Your task to perform on an android device: all mails in gmail Image 0: 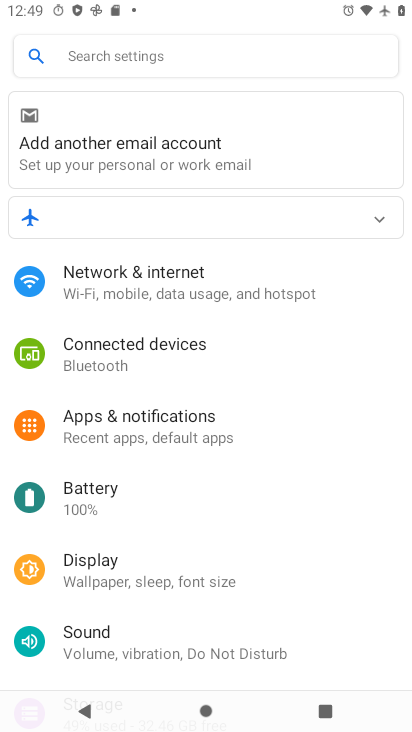
Step 0: press home button
Your task to perform on an android device: all mails in gmail Image 1: 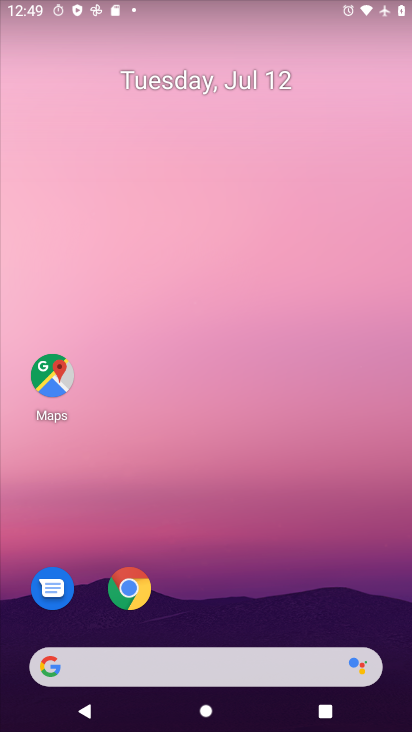
Step 1: drag from (188, 671) to (327, 172)
Your task to perform on an android device: all mails in gmail Image 2: 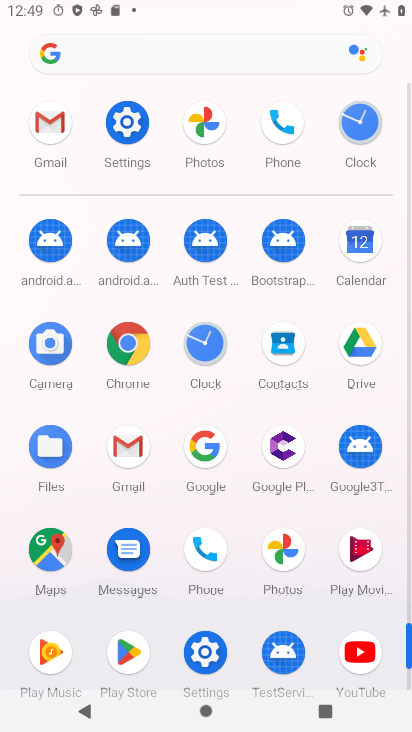
Step 2: click (51, 132)
Your task to perform on an android device: all mails in gmail Image 3: 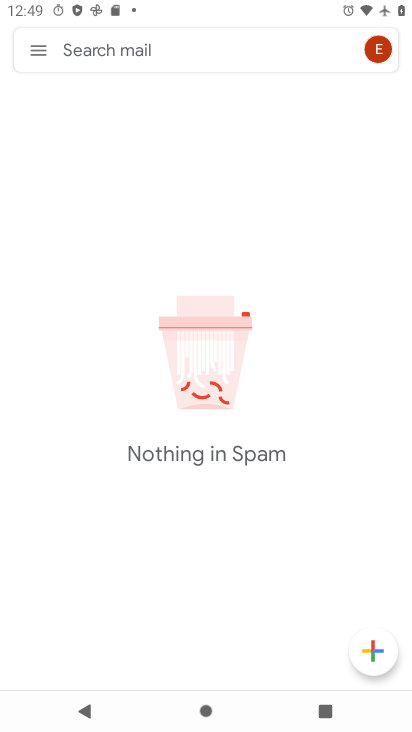
Step 3: click (32, 58)
Your task to perform on an android device: all mails in gmail Image 4: 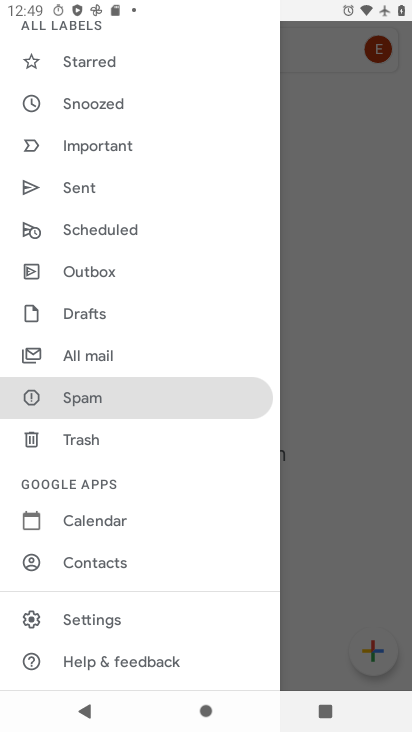
Step 4: click (86, 354)
Your task to perform on an android device: all mails in gmail Image 5: 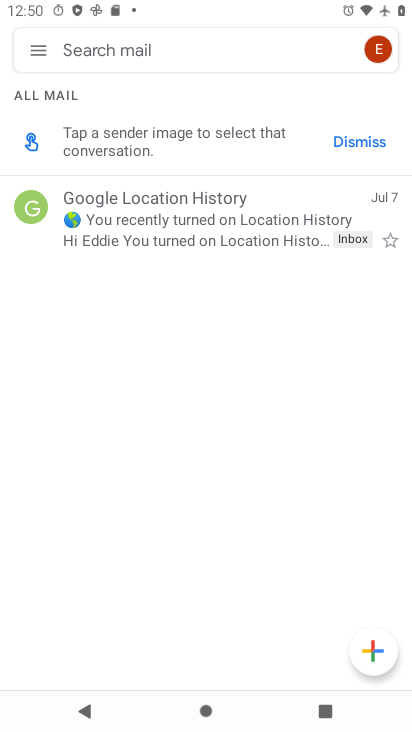
Step 5: task complete